Your task to perform on an android device: all mails in gmail Image 0: 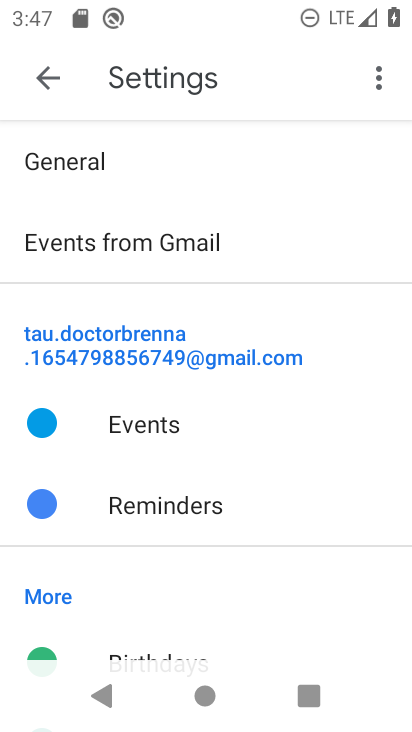
Step 0: press back button
Your task to perform on an android device: all mails in gmail Image 1: 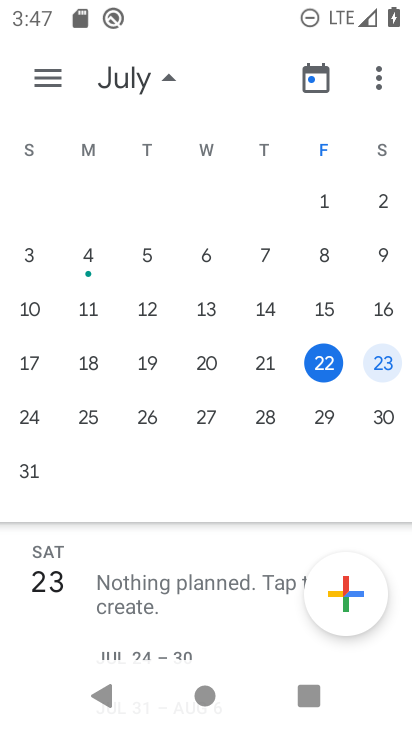
Step 1: press back button
Your task to perform on an android device: all mails in gmail Image 2: 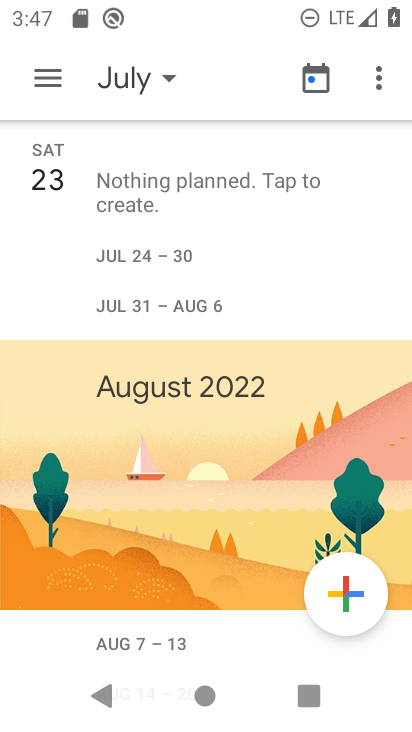
Step 2: press back button
Your task to perform on an android device: all mails in gmail Image 3: 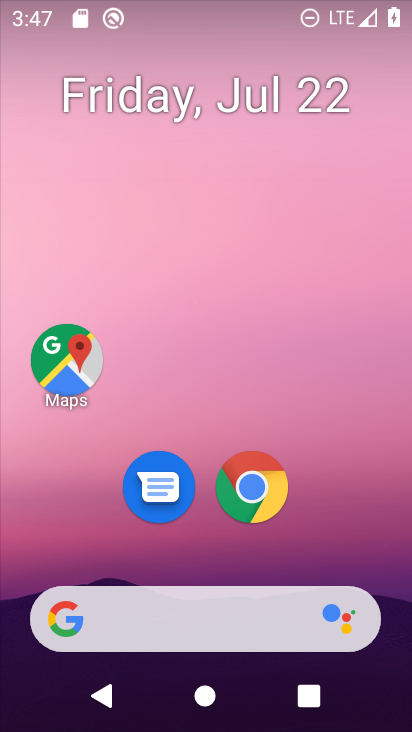
Step 3: drag from (228, 550) to (299, 3)
Your task to perform on an android device: all mails in gmail Image 4: 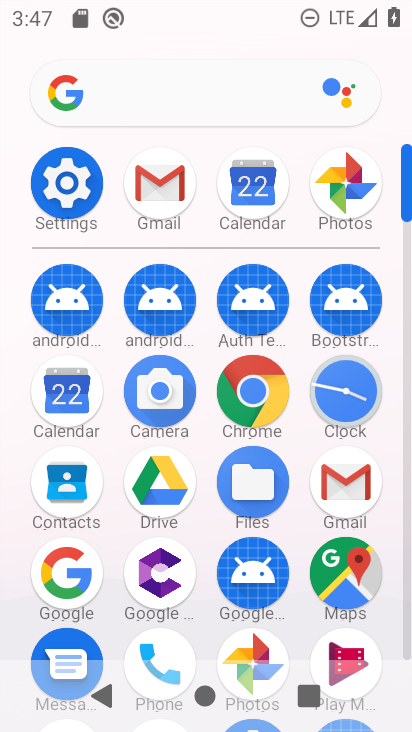
Step 4: click (151, 175)
Your task to perform on an android device: all mails in gmail Image 5: 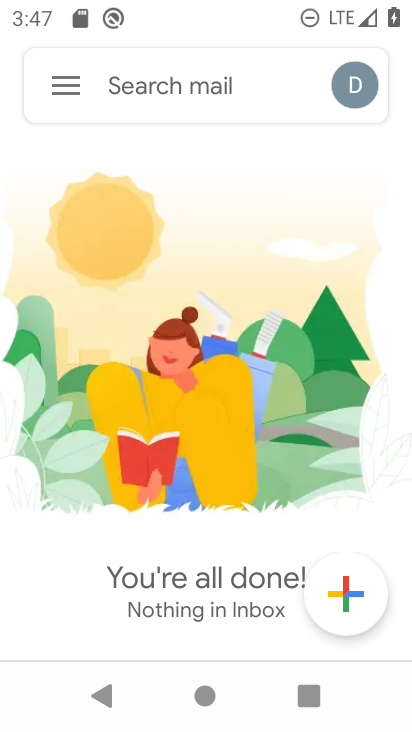
Step 5: click (63, 86)
Your task to perform on an android device: all mails in gmail Image 6: 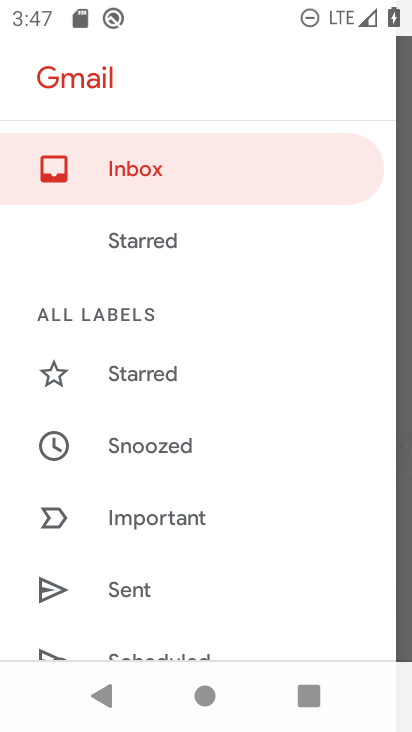
Step 6: drag from (114, 563) to (224, 171)
Your task to perform on an android device: all mails in gmail Image 7: 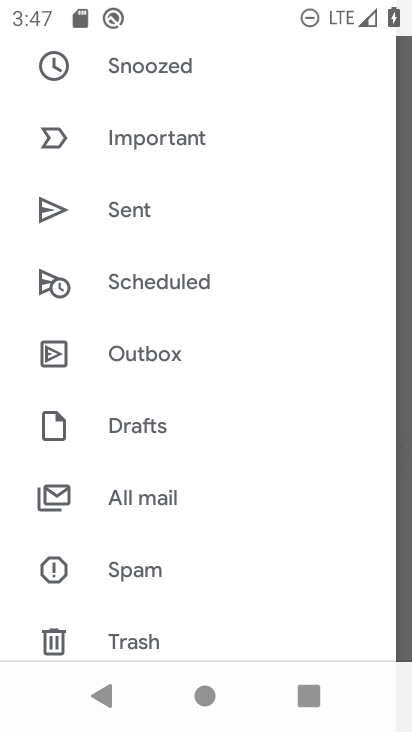
Step 7: click (134, 484)
Your task to perform on an android device: all mails in gmail Image 8: 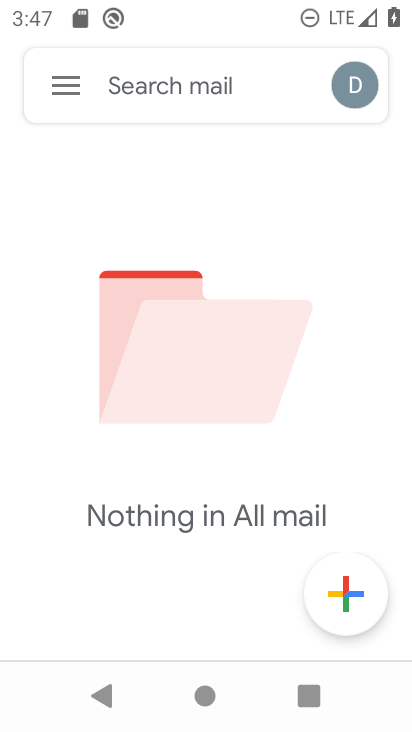
Step 8: task complete